Your task to perform on an android device: move a message to another label in the gmail app Image 0: 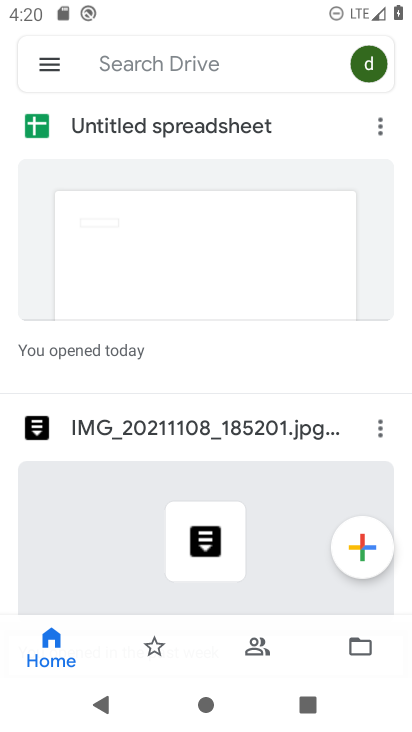
Step 0: press home button
Your task to perform on an android device: move a message to another label in the gmail app Image 1: 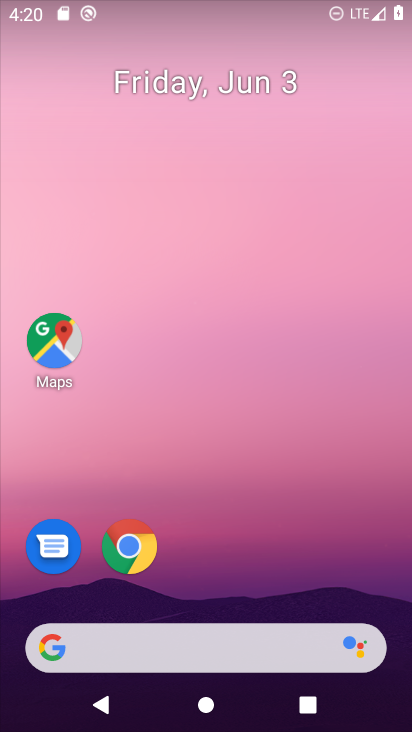
Step 1: drag from (228, 536) to (277, 0)
Your task to perform on an android device: move a message to another label in the gmail app Image 2: 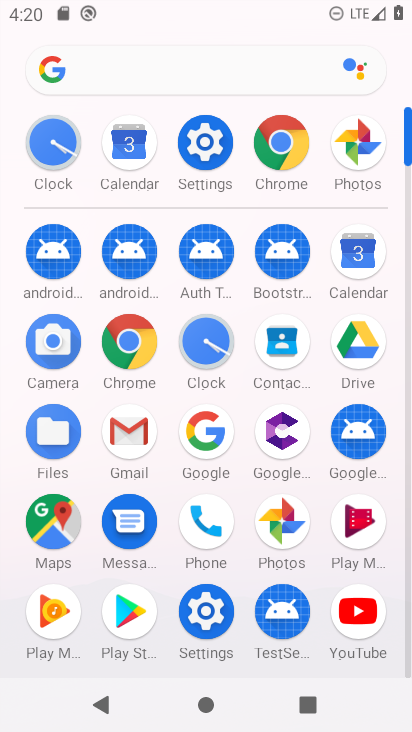
Step 2: click (123, 441)
Your task to perform on an android device: move a message to another label in the gmail app Image 3: 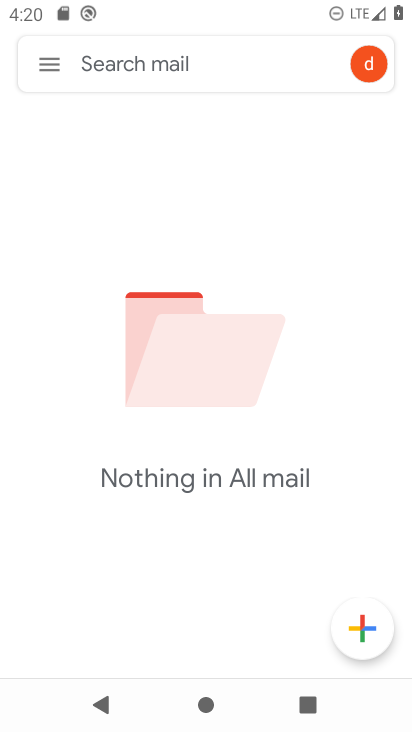
Step 3: task complete